Your task to perform on an android device: check android version Image 0: 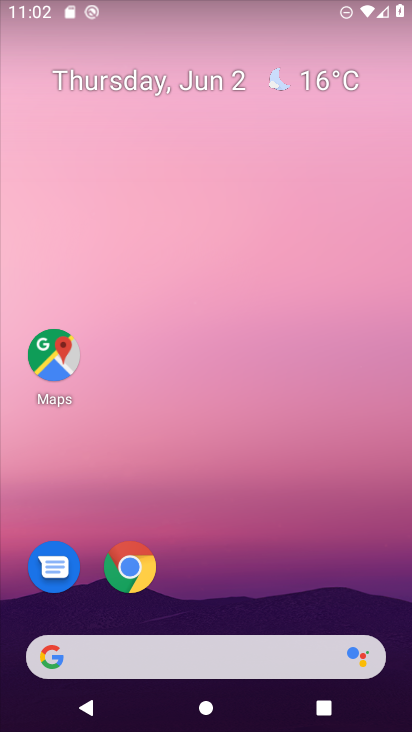
Step 0: drag from (255, 614) to (300, 182)
Your task to perform on an android device: check android version Image 1: 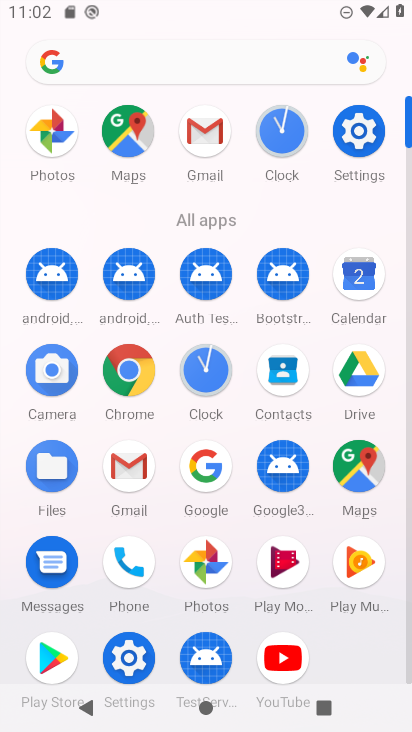
Step 1: click (361, 127)
Your task to perform on an android device: check android version Image 2: 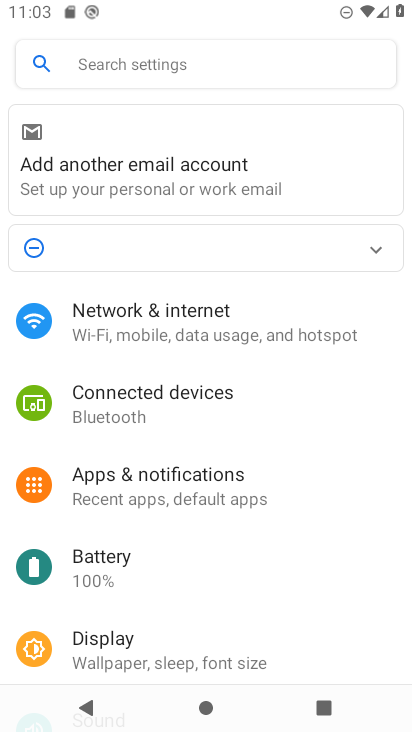
Step 2: drag from (247, 575) to (320, 15)
Your task to perform on an android device: check android version Image 3: 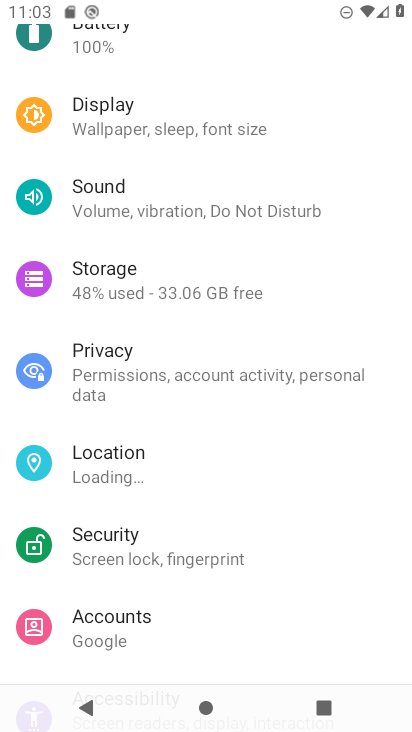
Step 3: drag from (224, 583) to (271, 71)
Your task to perform on an android device: check android version Image 4: 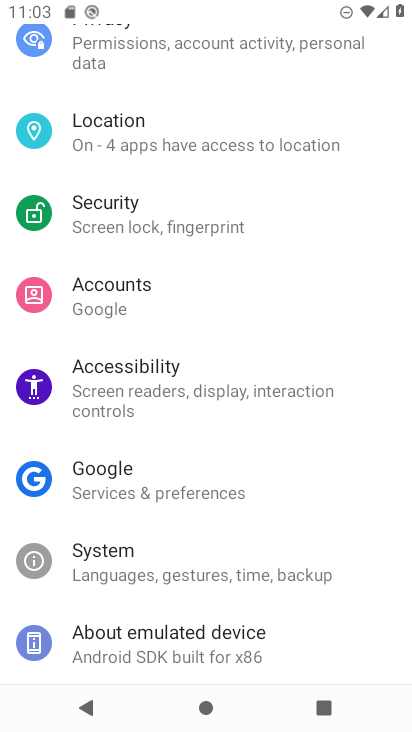
Step 4: drag from (192, 545) to (285, 179)
Your task to perform on an android device: check android version Image 5: 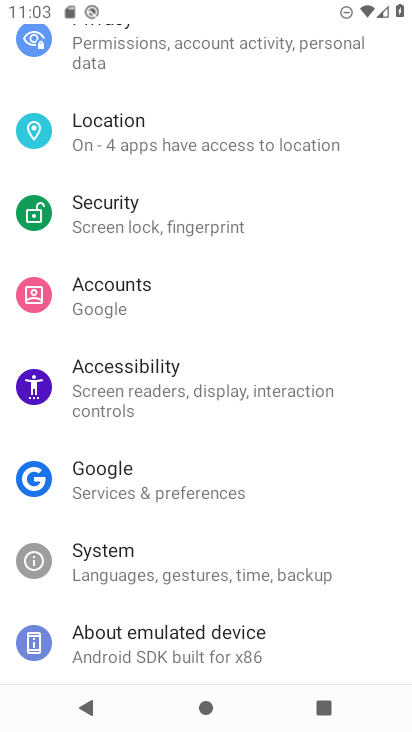
Step 5: click (154, 636)
Your task to perform on an android device: check android version Image 6: 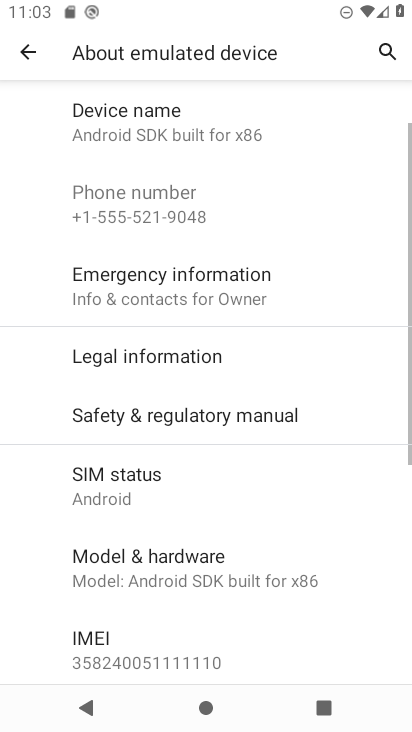
Step 6: drag from (238, 590) to (236, 164)
Your task to perform on an android device: check android version Image 7: 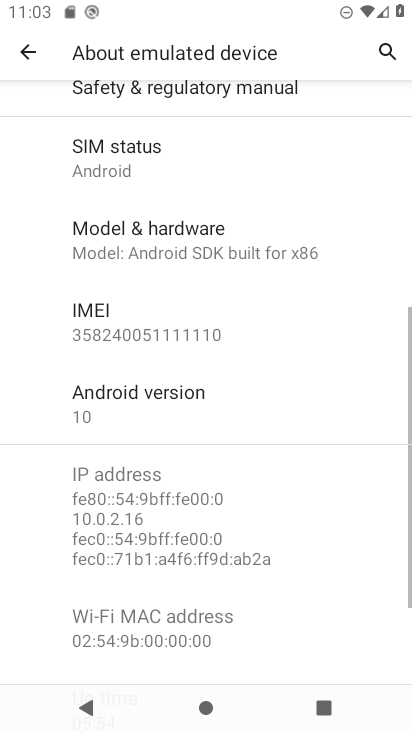
Step 7: drag from (170, 558) to (249, 210)
Your task to perform on an android device: check android version Image 8: 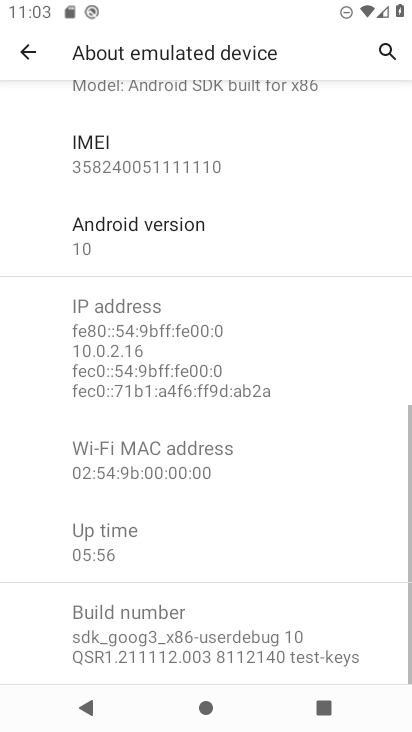
Step 8: click (187, 241)
Your task to perform on an android device: check android version Image 9: 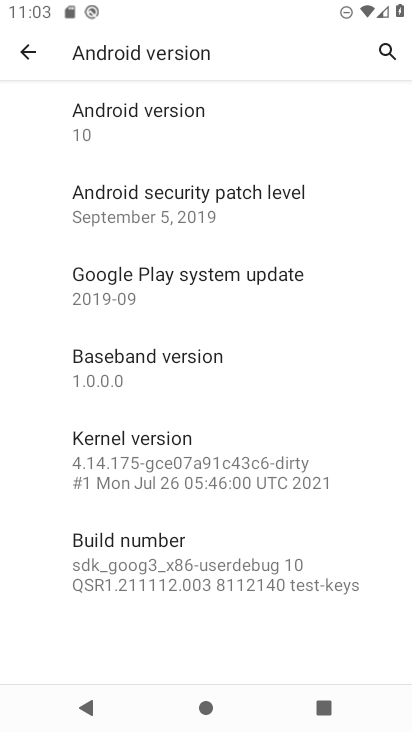
Step 9: task complete